Your task to perform on an android device: Open Reddit.com Image 0: 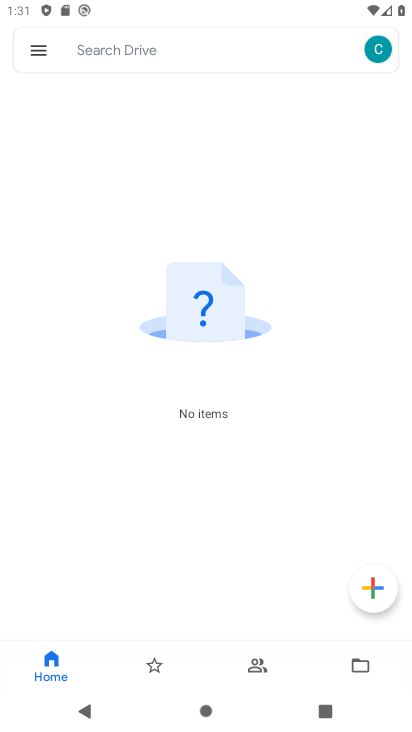
Step 0: press home button
Your task to perform on an android device: Open Reddit.com Image 1: 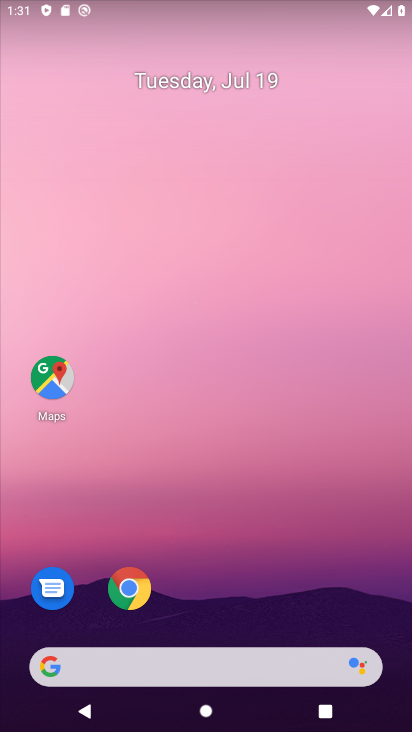
Step 1: drag from (250, 621) to (215, 191)
Your task to perform on an android device: Open Reddit.com Image 2: 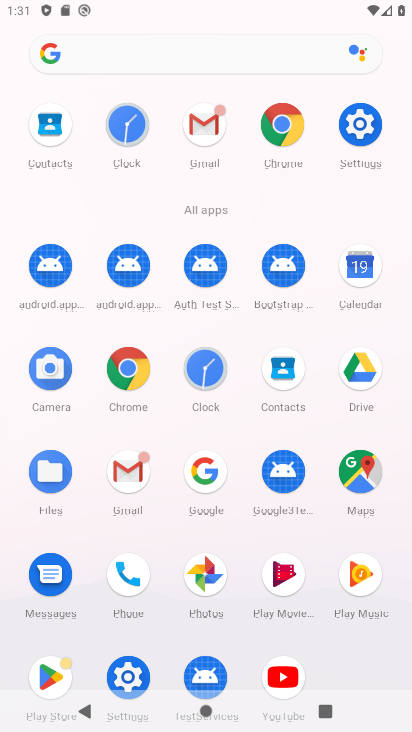
Step 2: click (292, 125)
Your task to perform on an android device: Open Reddit.com Image 3: 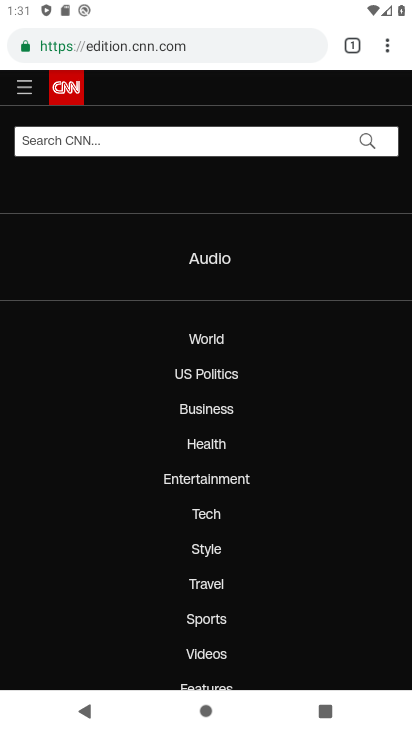
Step 3: click (249, 50)
Your task to perform on an android device: Open Reddit.com Image 4: 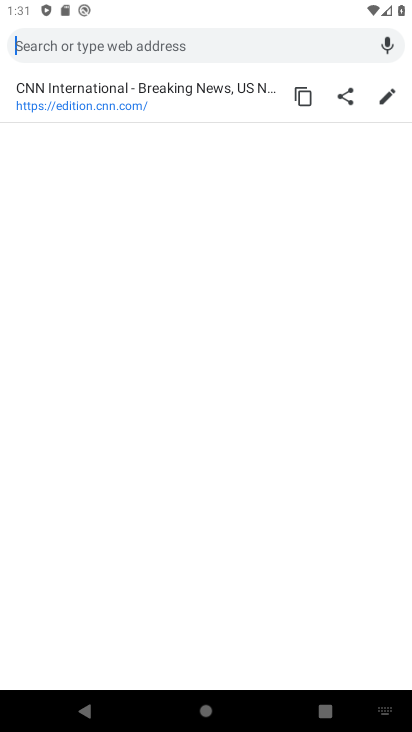
Step 4: click (174, 53)
Your task to perform on an android device: Open Reddit.com Image 5: 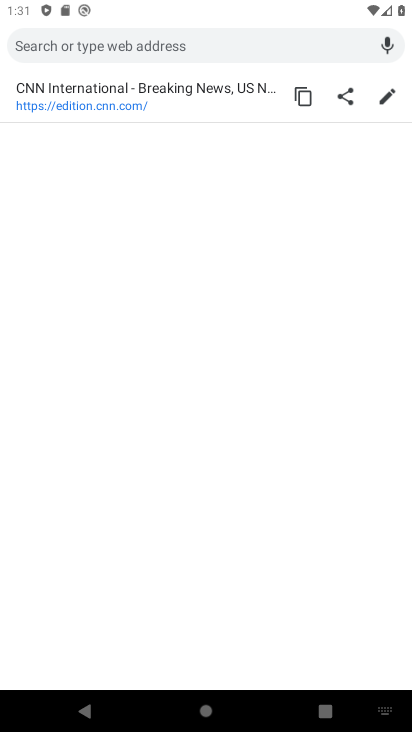
Step 5: type "reddit.com"
Your task to perform on an android device: Open Reddit.com Image 6: 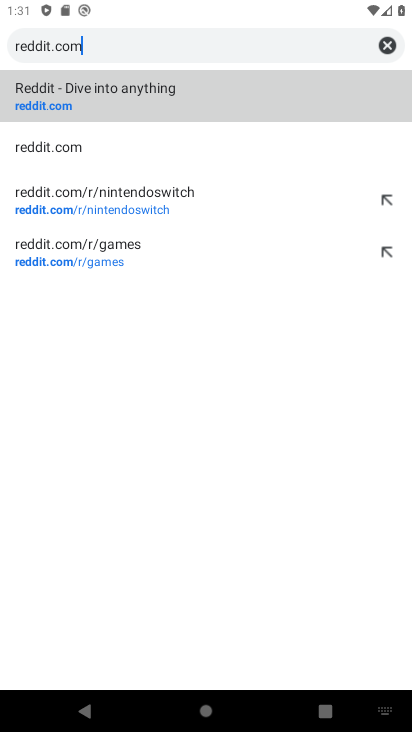
Step 6: click (178, 89)
Your task to perform on an android device: Open Reddit.com Image 7: 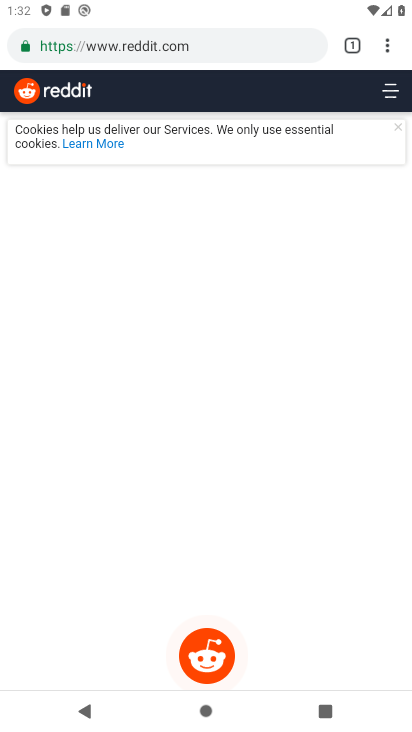
Step 7: task complete